Your task to perform on an android device: find snoozed emails in the gmail app Image 0: 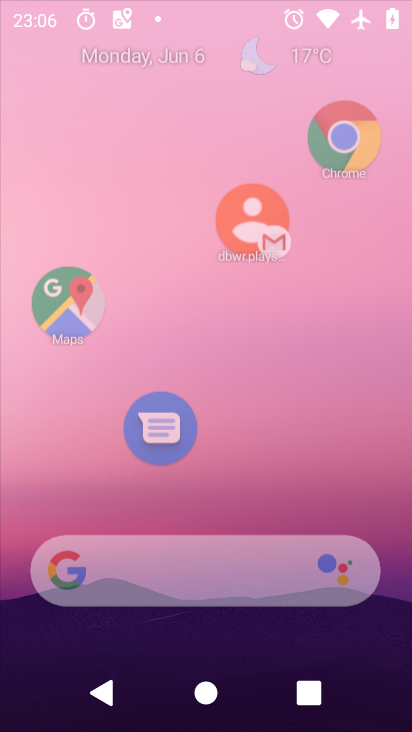
Step 0: click (292, 269)
Your task to perform on an android device: find snoozed emails in the gmail app Image 1: 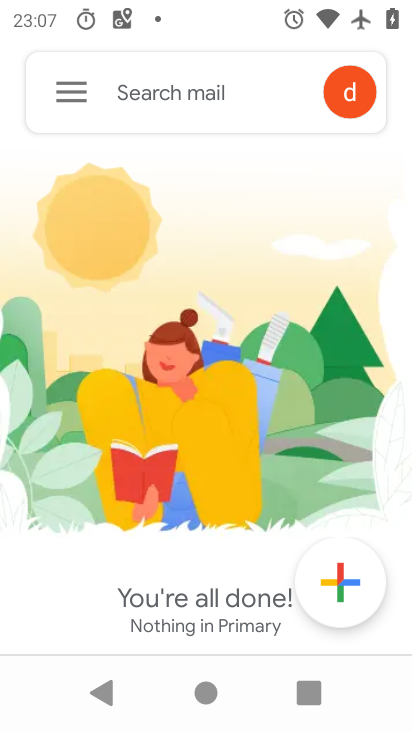
Step 1: click (54, 89)
Your task to perform on an android device: find snoozed emails in the gmail app Image 2: 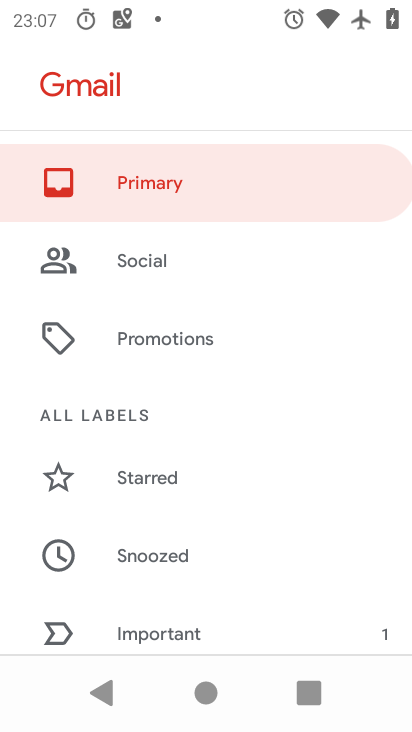
Step 2: click (174, 551)
Your task to perform on an android device: find snoozed emails in the gmail app Image 3: 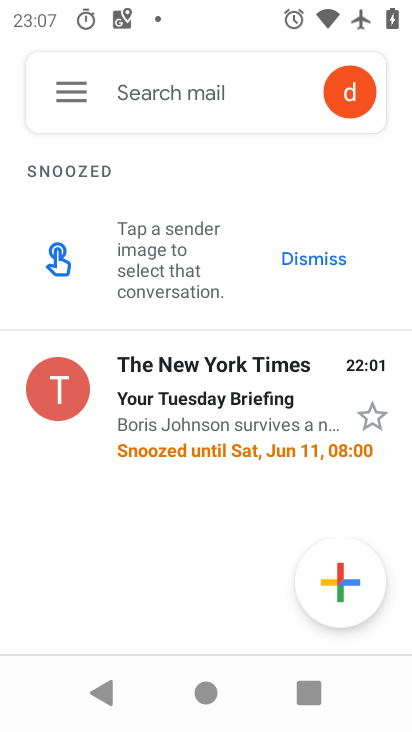
Step 3: task complete